Your task to perform on an android device: open chrome privacy settings Image 0: 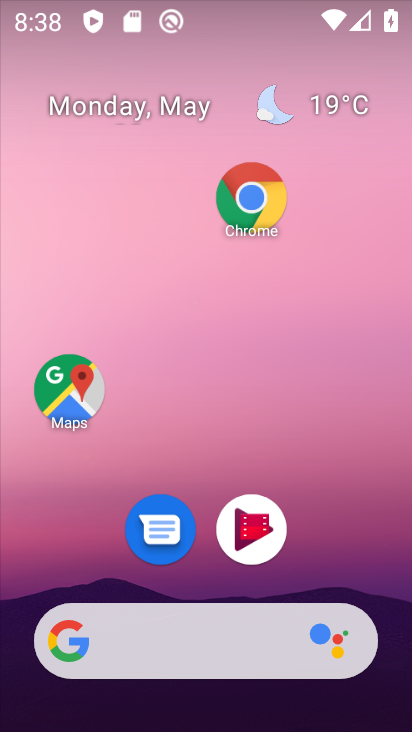
Step 0: click (249, 223)
Your task to perform on an android device: open chrome privacy settings Image 1: 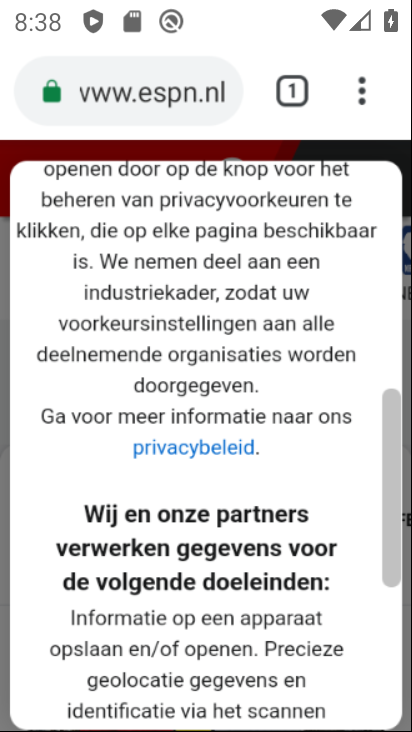
Step 1: click (366, 89)
Your task to perform on an android device: open chrome privacy settings Image 2: 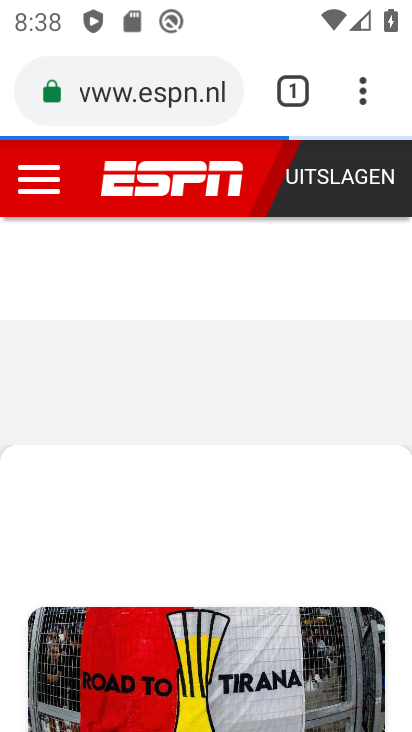
Step 2: click (363, 102)
Your task to perform on an android device: open chrome privacy settings Image 3: 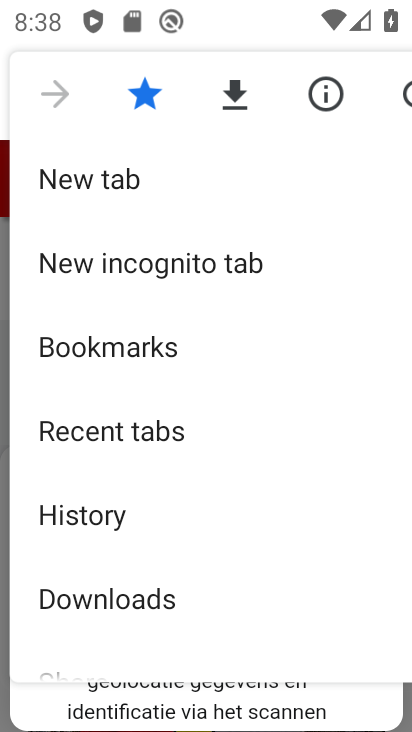
Step 3: drag from (141, 576) to (112, 430)
Your task to perform on an android device: open chrome privacy settings Image 4: 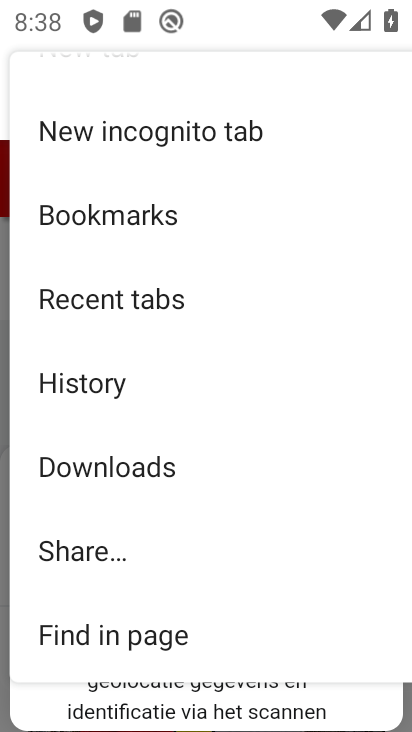
Step 4: drag from (111, 600) to (122, 379)
Your task to perform on an android device: open chrome privacy settings Image 5: 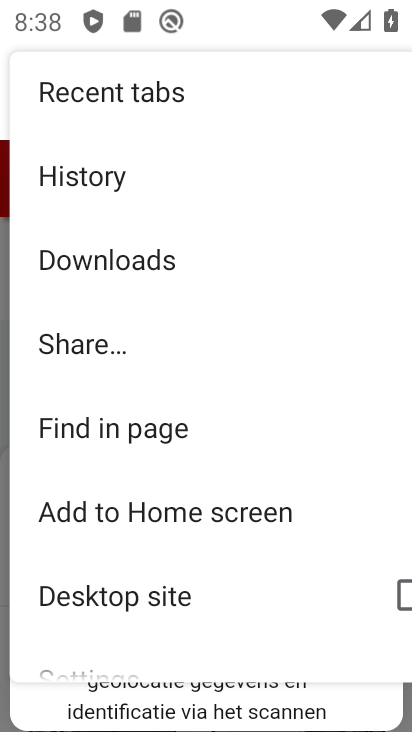
Step 5: drag from (124, 622) to (125, 342)
Your task to perform on an android device: open chrome privacy settings Image 6: 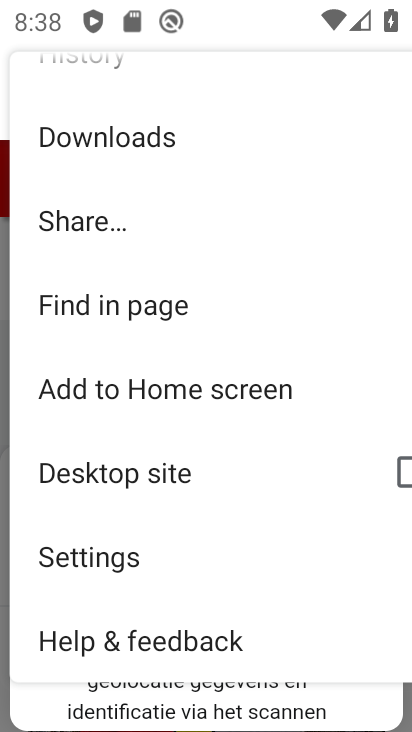
Step 6: click (94, 572)
Your task to perform on an android device: open chrome privacy settings Image 7: 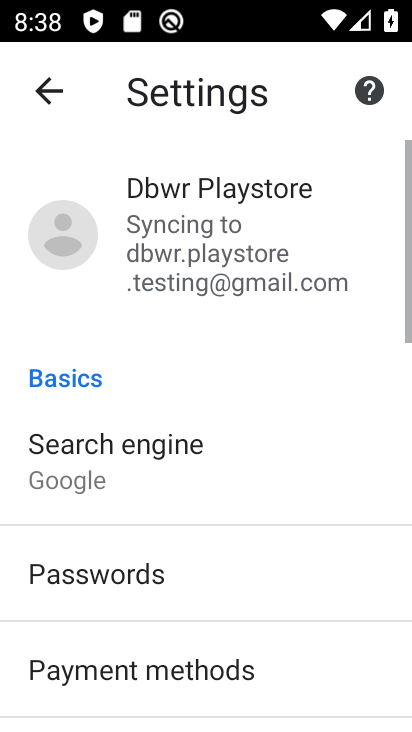
Step 7: drag from (158, 658) to (165, 316)
Your task to perform on an android device: open chrome privacy settings Image 8: 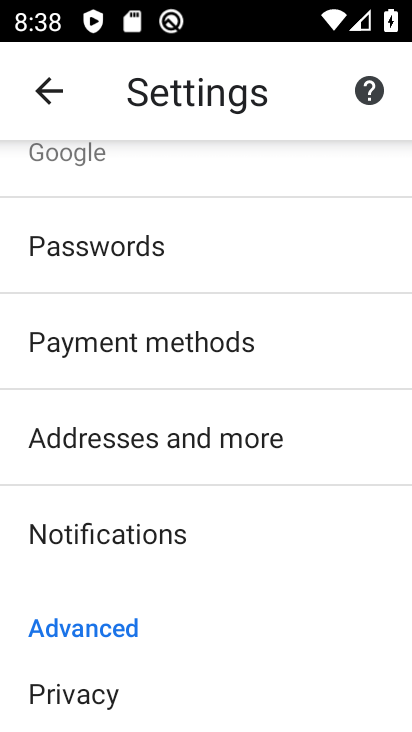
Step 8: click (89, 707)
Your task to perform on an android device: open chrome privacy settings Image 9: 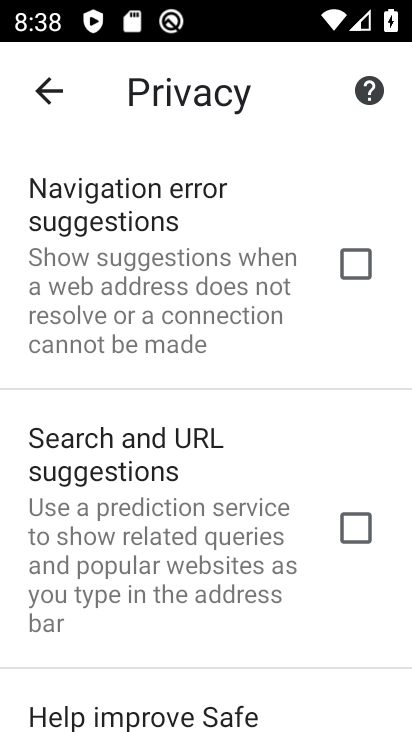
Step 9: task complete